Your task to perform on an android device: read, delete, or share a saved page in the chrome app Image 0: 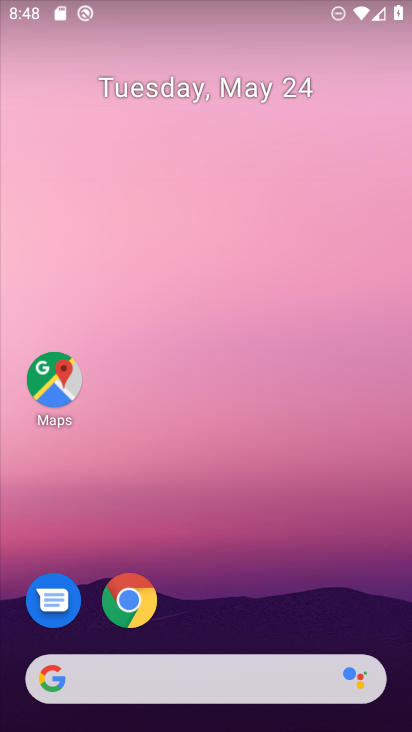
Step 0: click (138, 596)
Your task to perform on an android device: read, delete, or share a saved page in the chrome app Image 1: 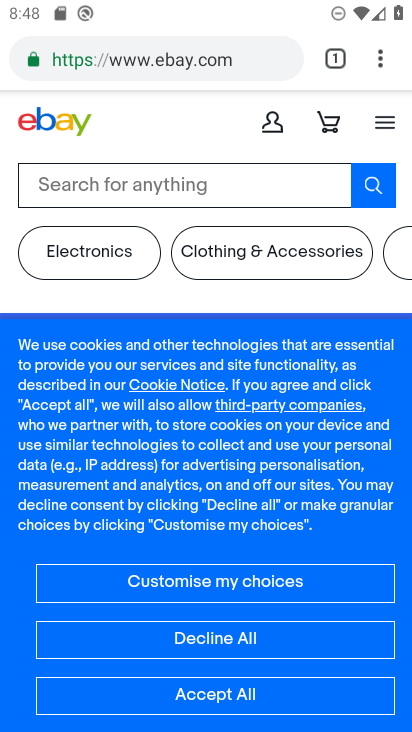
Step 1: click (389, 50)
Your task to perform on an android device: read, delete, or share a saved page in the chrome app Image 2: 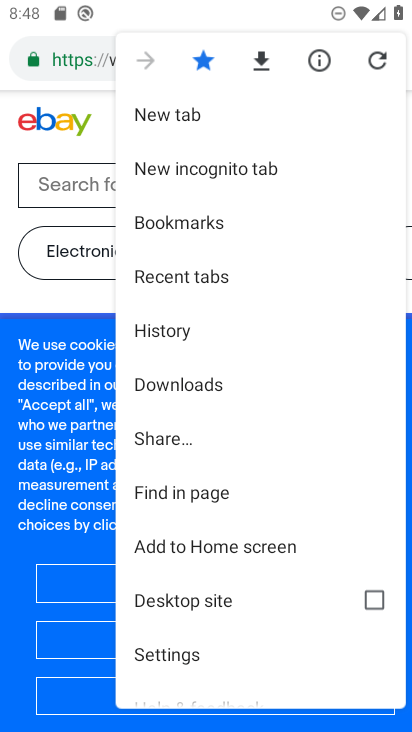
Step 2: click (223, 374)
Your task to perform on an android device: read, delete, or share a saved page in the chrome app Image 3: 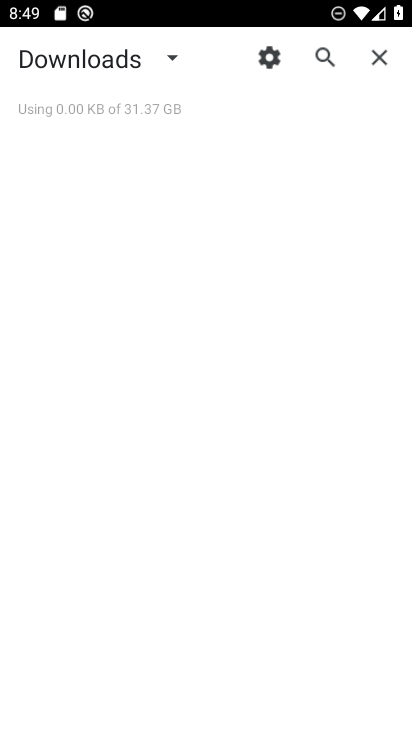
Step 3: task complete